Your task to perform on an android device: Open Maps and search for coffee Image 0: 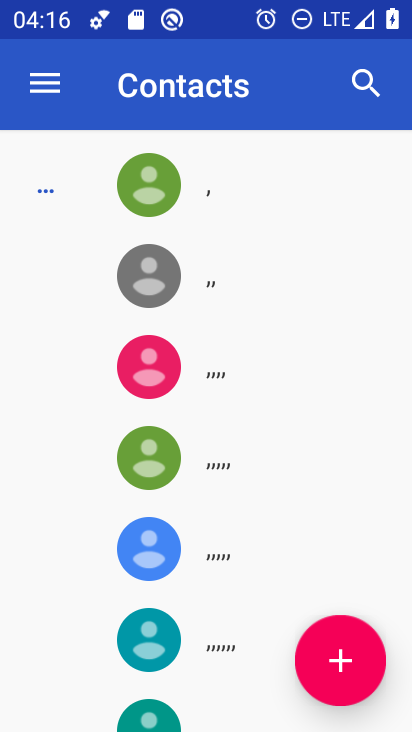
Step 0: press home button
Your task to perform on an android device: Open Maps and search for coffee Image 1: 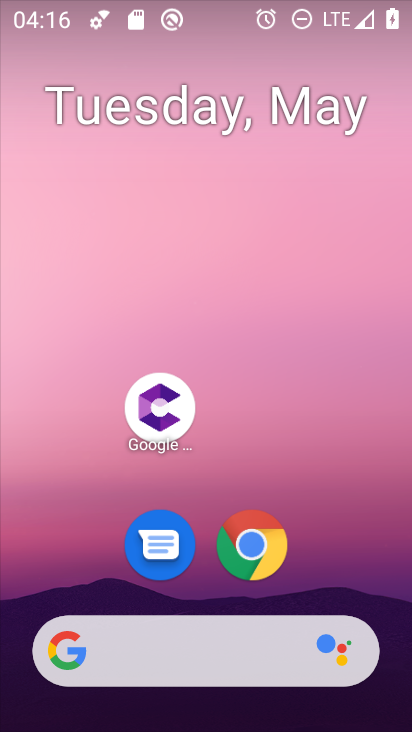
Step 1: drag from (355, 574) to (379, 152)
Your task to perform on an android device: Open Maps and search for coffee Image 2: 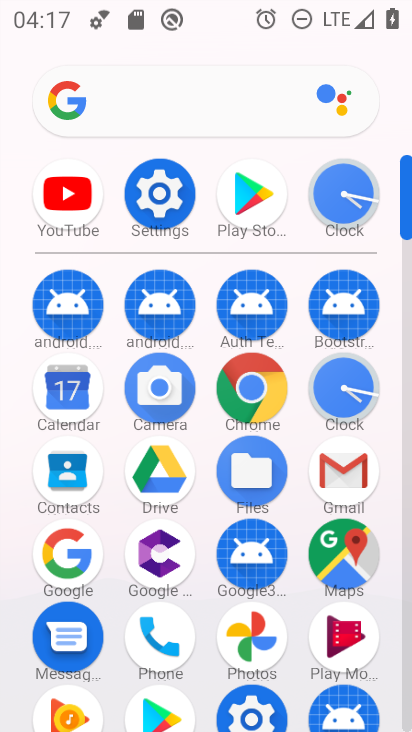
Step 2: click (363, 561)
Your task to perform on an android device: Open Maps and search for coffee Image 3: 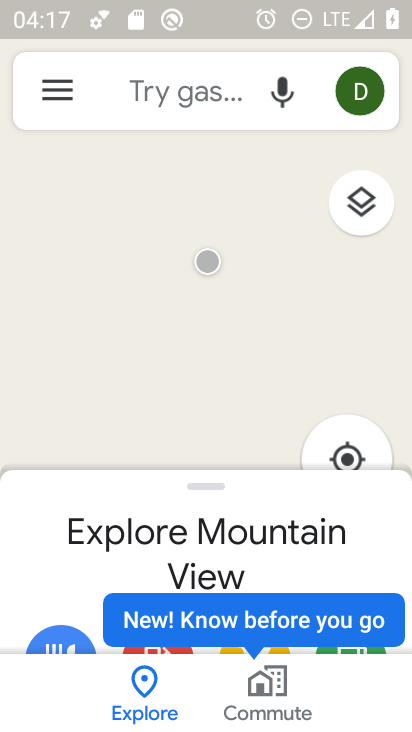
Step 3: click (186, 83)
Your task to perform on an android device: Open Maps and search for coffee Image 4: 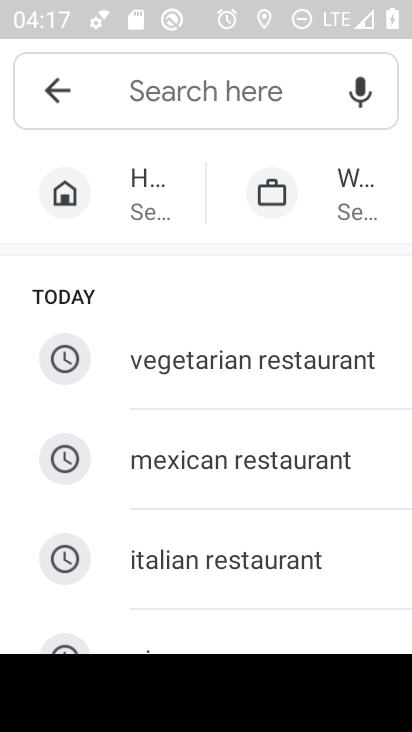
Step 4: type "coffee"
Your task to perform on an android device: Open Maps and search for coffee Image 5: 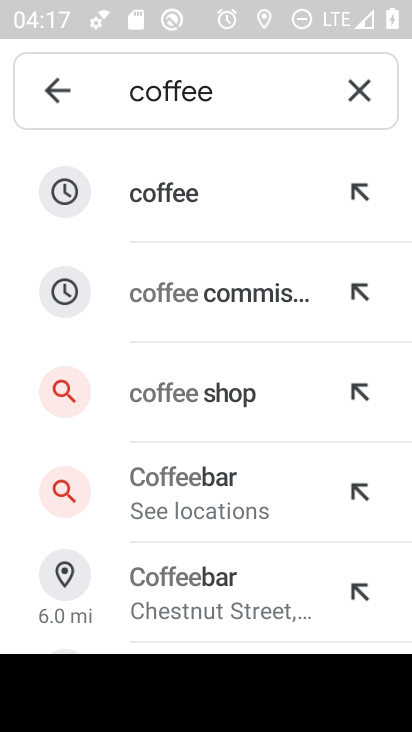
Step 5: click (241, 203)
Your task to perform on an android device: Open Maps and search for coffee Image 6: 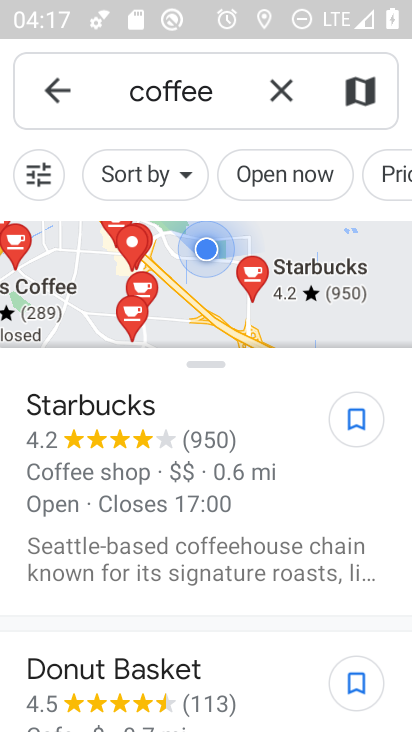
Step 6: task complete